Your task to perform on an android device: Open network settings Image 0: 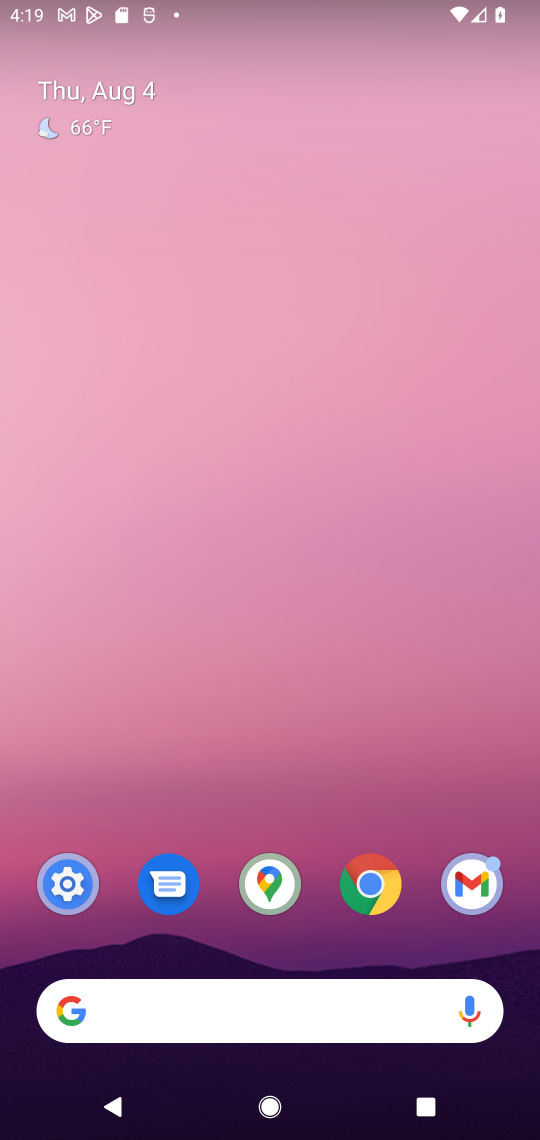
Step 0: click (43, 900)
Your task to perform on an android device: Open network settings Image 1: 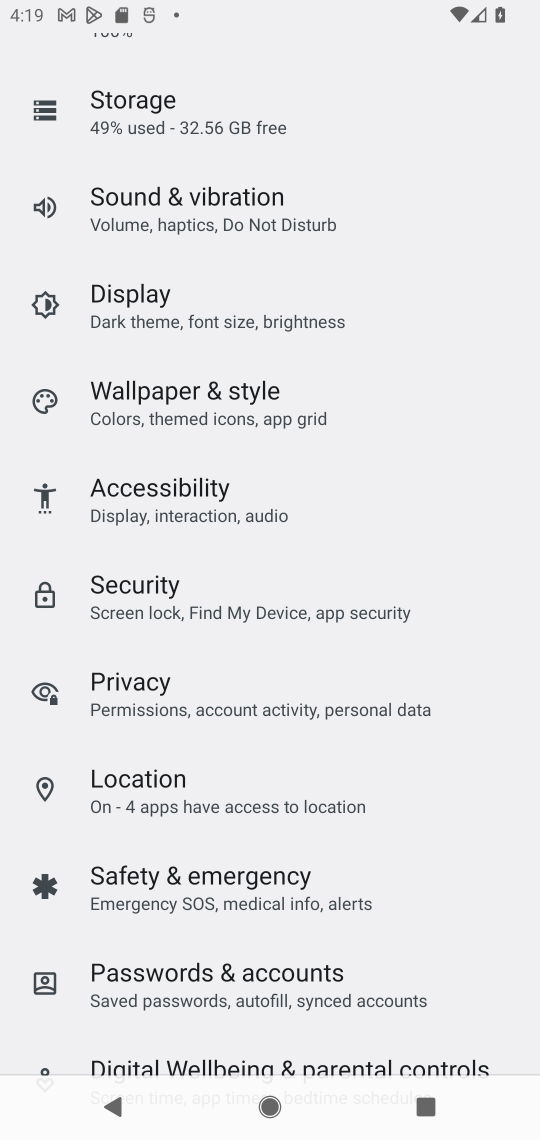
Step 1: drag from (317, 363) to (355, 1081)
Your task to perform on an android device: Open network settings Image 2: 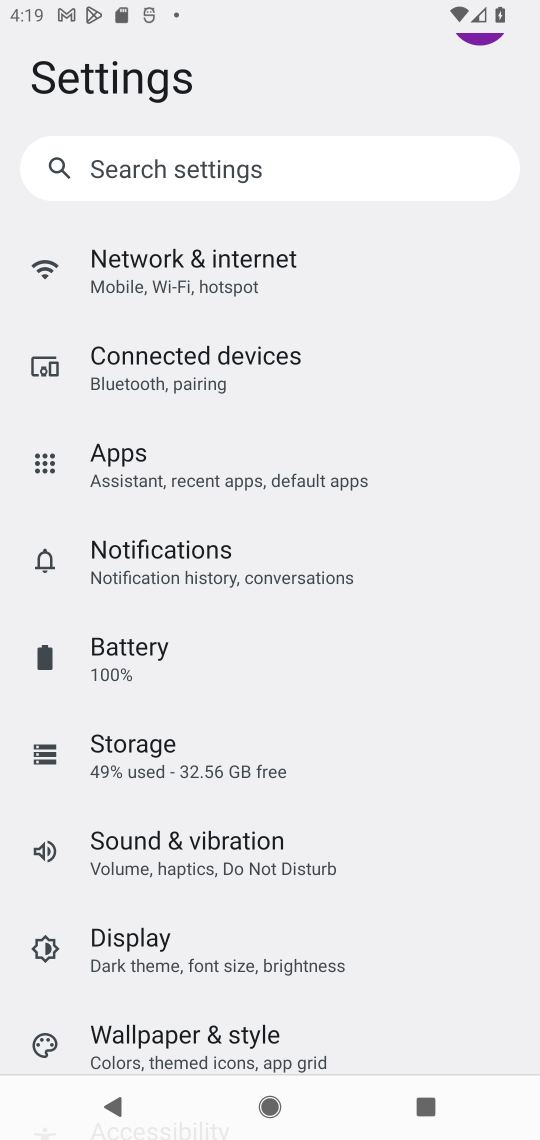
Step 2: drag from (230, 301) to (230, 379)
Your task to perform on an android device: Open network settings Image 3: 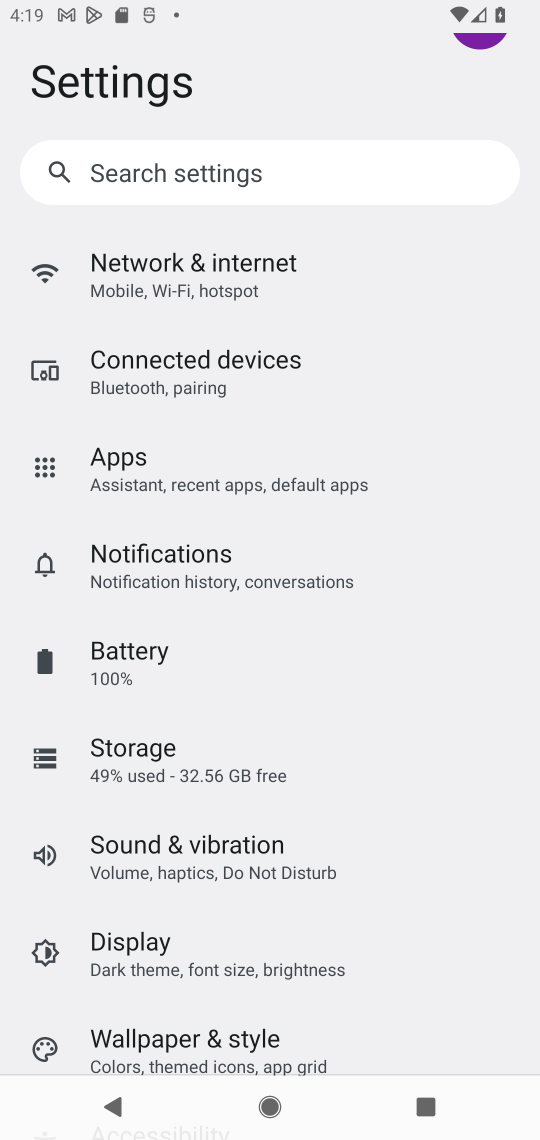
Step 3: click (294, 259)
Your task to perform on an android device: Open network settings Image 4: 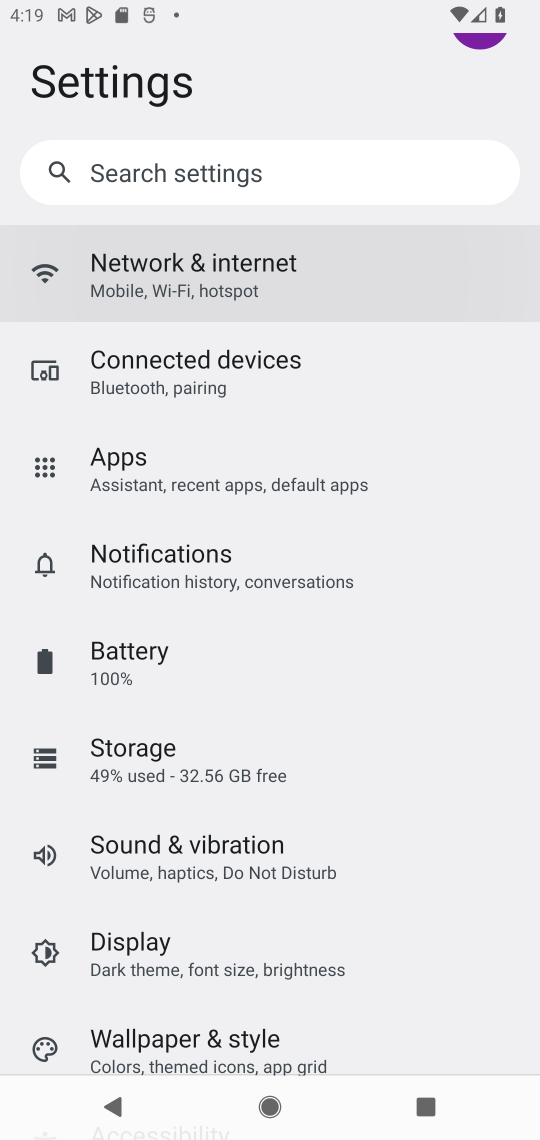
Step 4: task complete